Your task to perform on an android device: turn on javascript in the chrome app Image 0: 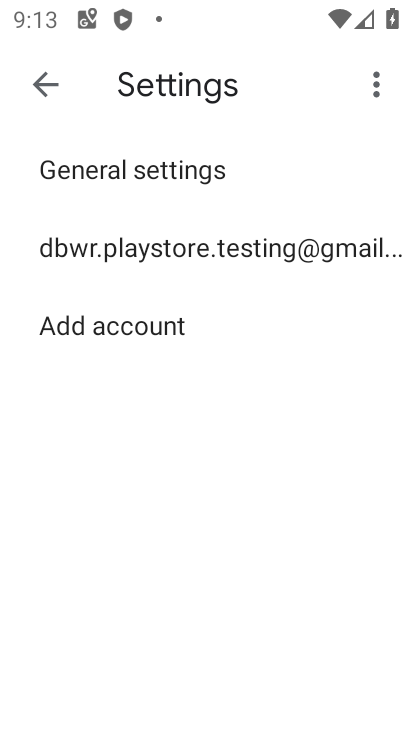
Step 0: press back button
Your task to perform on an android device: turn on javascript in the chrome app Image 1: 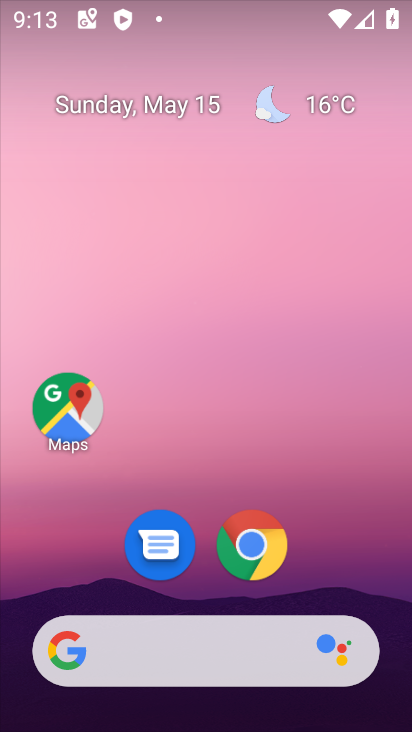
Step 1: click (252, 544)
Your task to perform on an android device: turn on javascript in the chrome app Image 2: 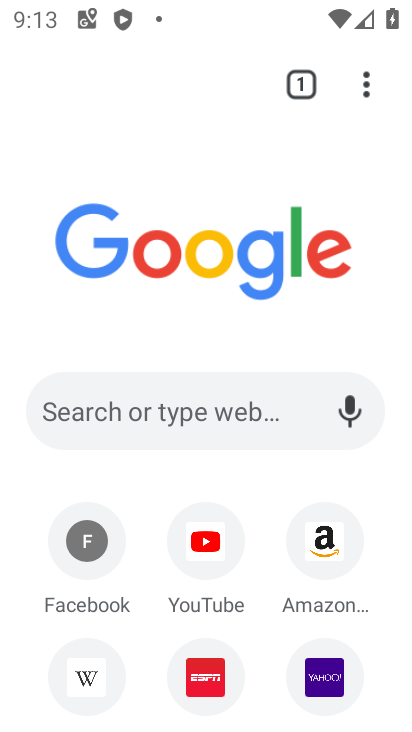
Step 2: click (366, 82)
Your task to perform on an android device: turn on javascript in the chrome app Image 3: 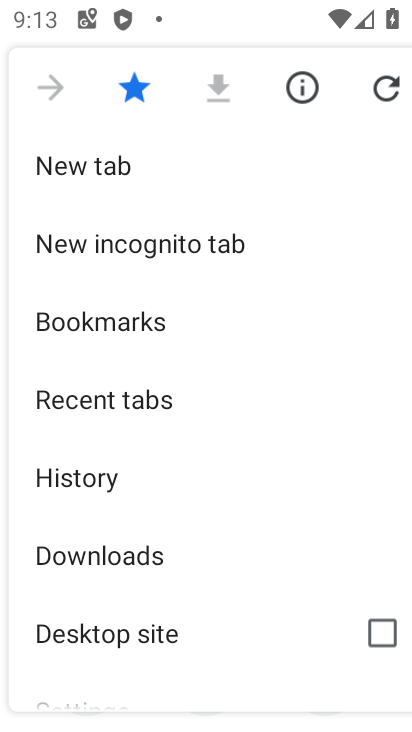
Step 3: drag from (131, 495) to (163, 413)
Your task to perform on an android device: turn on javascript in the chrome app Image 4: 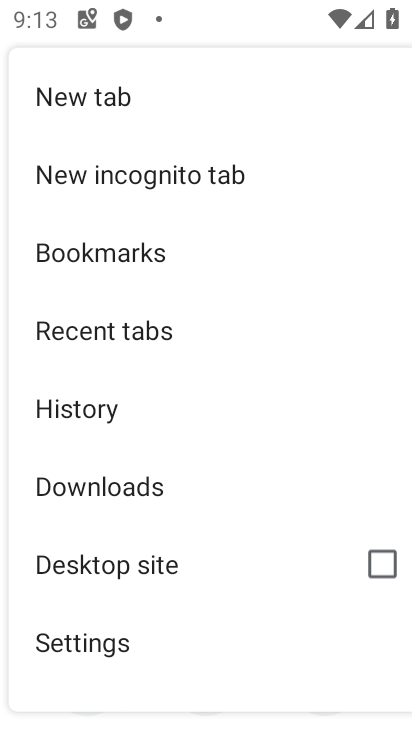
Step 4: drag from (97, 526) to (124, 421)
Your task to perform on an android device: turn on javascript in the chrome app Image 5: 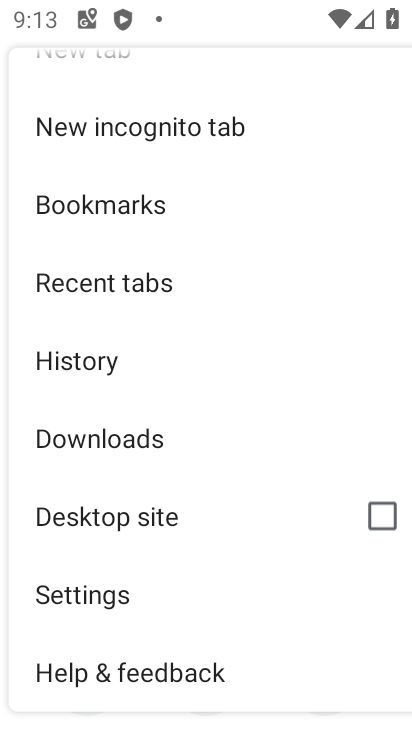
Step 5: click (98, 599)
Your task to perform on an android device: turn on javascript in the chrome app Image 6: 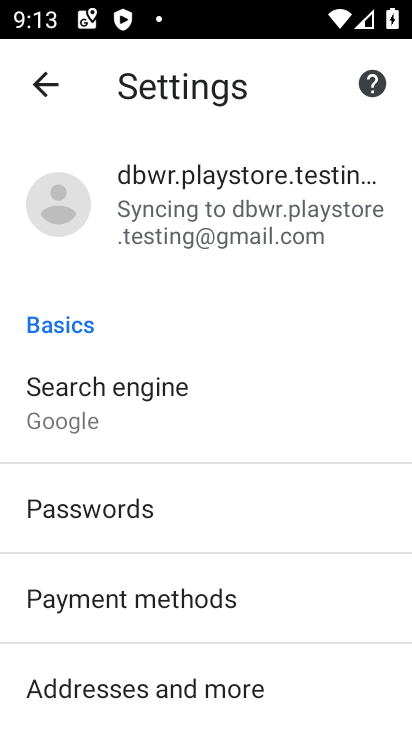
Step 6: drag from (156, 570) to (236, 459)
Your task to perform on an android device: turn on javascript in the chrome app Image 7: 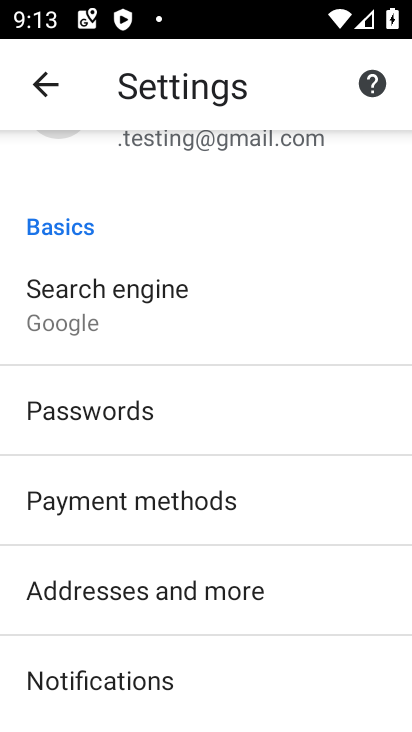
Step 7: drag from (121, 573) to (198, 480)
Your task to perform on an android device: turn on javascript in the chrome app Image 8: 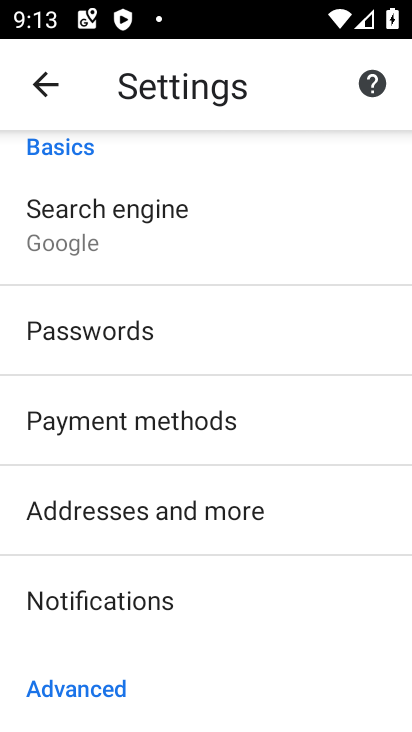
Step 8: drag from (72, 631) to (137, 520)
Your task to perform on an android device: turn on javascript in the chrome app Image 9: 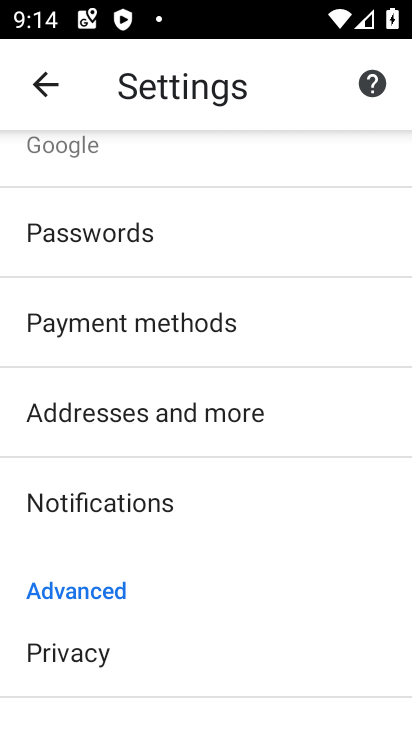
Step 9: drag from (74, 540) to (144, 436)
Your task to perform on an android device: turn on javascript in the chrome app Image 10: 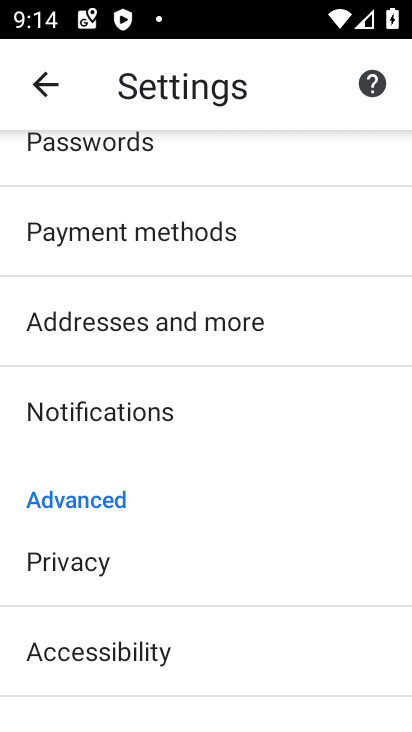
Step 10: drag from (76, 613) to (157, 484)
Your task to perform on an android device: turn on javascript in the chrome app Image 11: 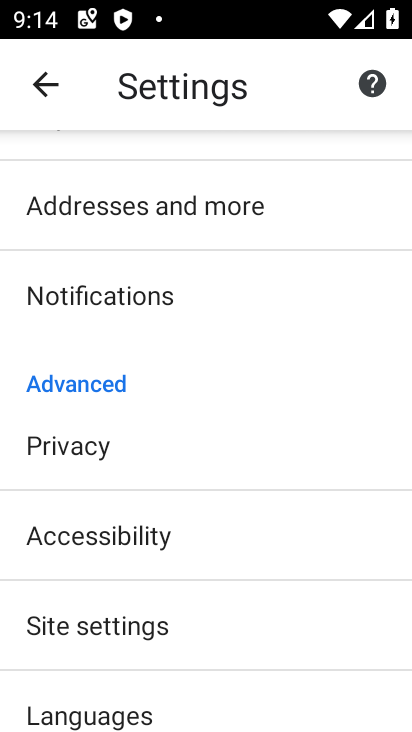
Step 11: click (89, 629)
Your task to perform on an android device: turn on javascript in the chrome app Image 12: 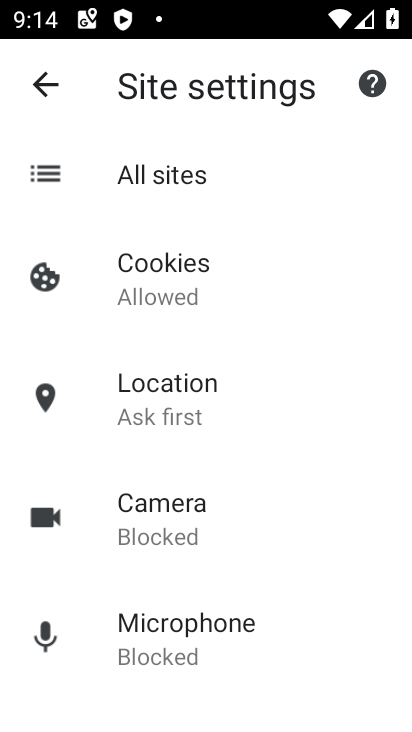
Step 12: drag from (203, 426) to (228, 362)
Your task to perform on an android device: turn on javascript in the chrome app Image 13: 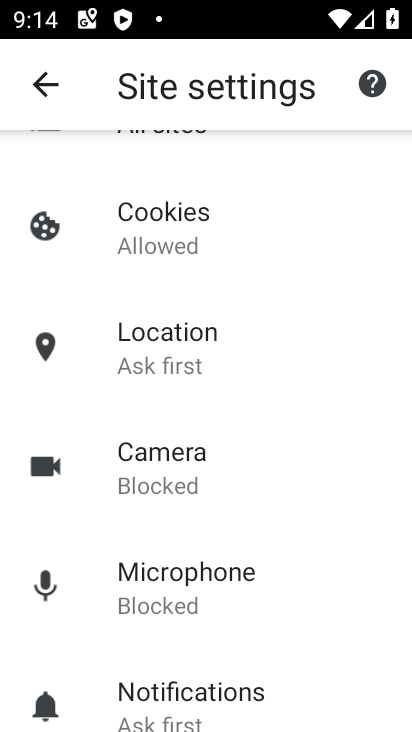
Step 13: drag from (210, 530) to (274, 383)
Your task to perform on an android device: turn on javascript in the chrome app Image 14: 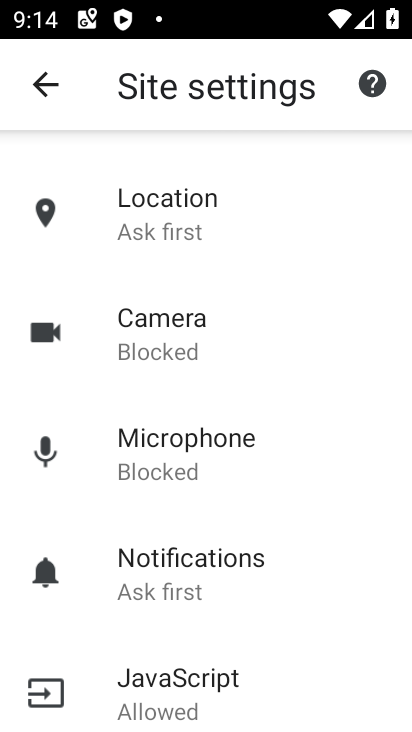
Step 14: drag from (245, 620) to (299, 524)
Your task to perform on an android device: turn on javascript in the chrome app Image 15: 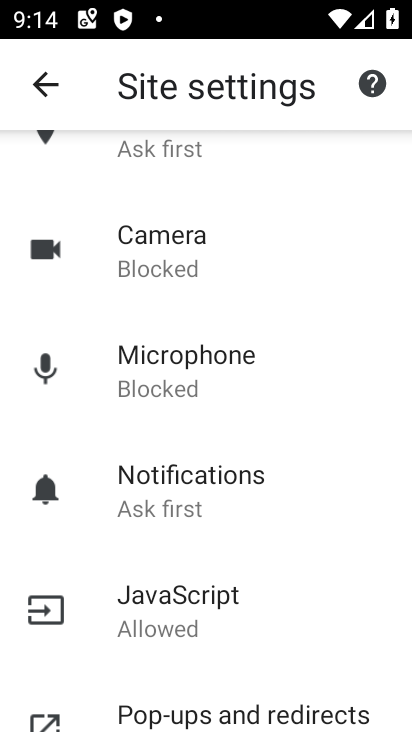
Step 15: click (169, 601)
Your task to perform on an android device: turn on javascript in the chrome app Image 16: 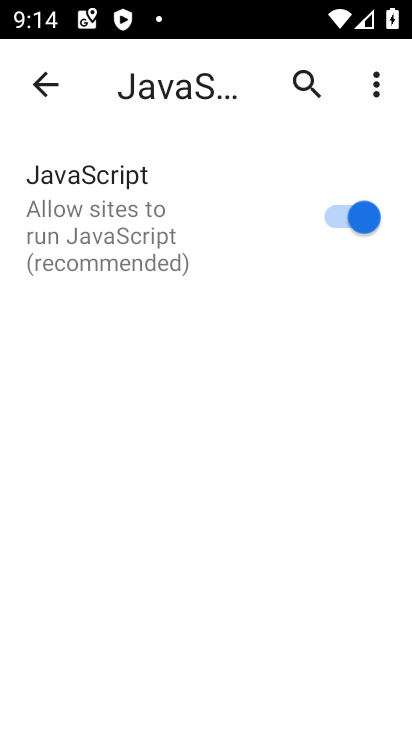
Step 16: task complete